Your task to perform on an android device: Go to notification settings Image 0: 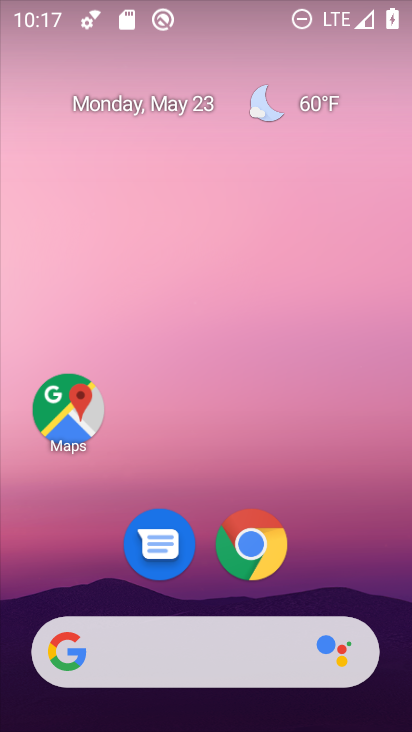
Step 0: drag from (336, 538) to (251, 132)
Your task to perform on an android device: Go to notification settings Image 1: 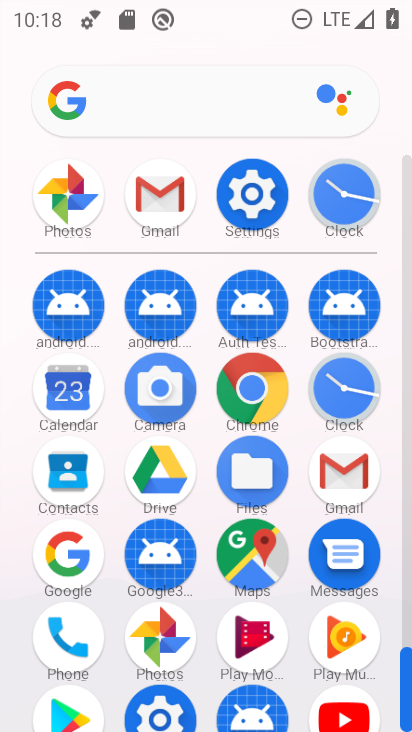
Step 1: click (256, 203)
Your task to perform on an android device: Go to notification settings Image 2: 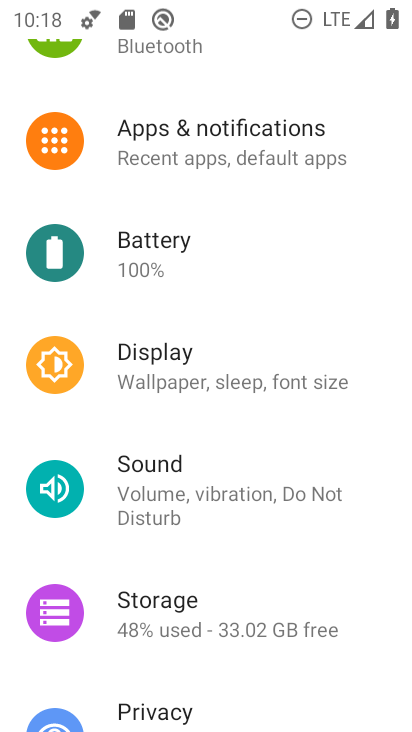
Step 2: click (249, 155)
Your task to perform on an android device: Go to notification settings Image 3: 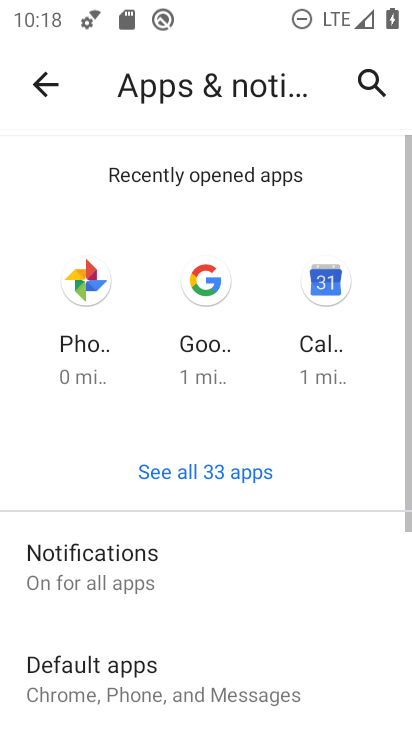
Step 3: click (88, 556)
Your task to perform on an android device: Go to notification settings Image 4: 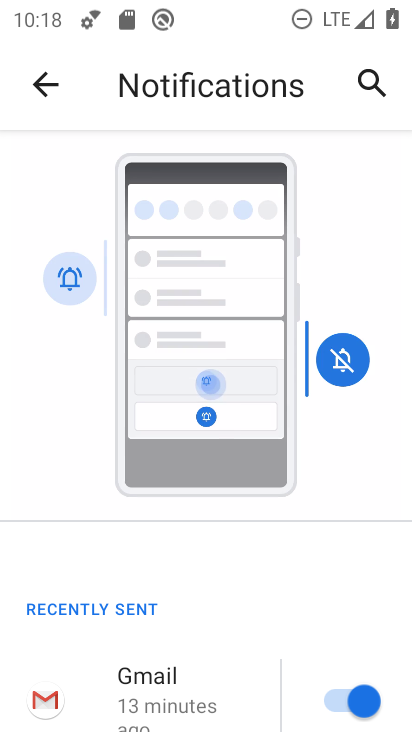
Step 4: drag from (140, 620) to (201, 188)
Your task to perform on an android device: Go to notification settings Image 5: 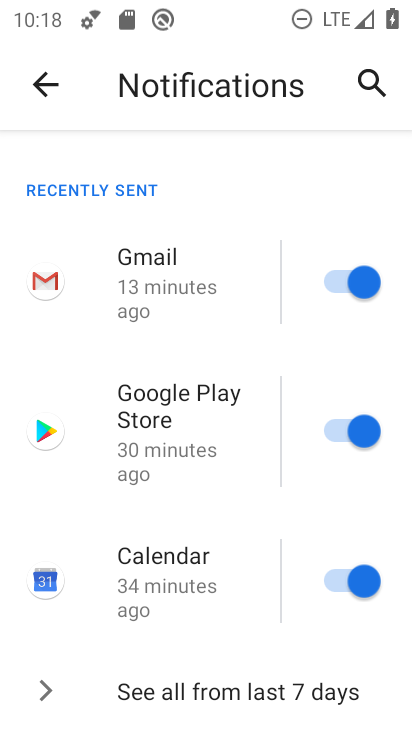
Step 5: drag from (195, 551) to (189, 352)
Your task to perform on an android device: Go to notification settings Image 6: 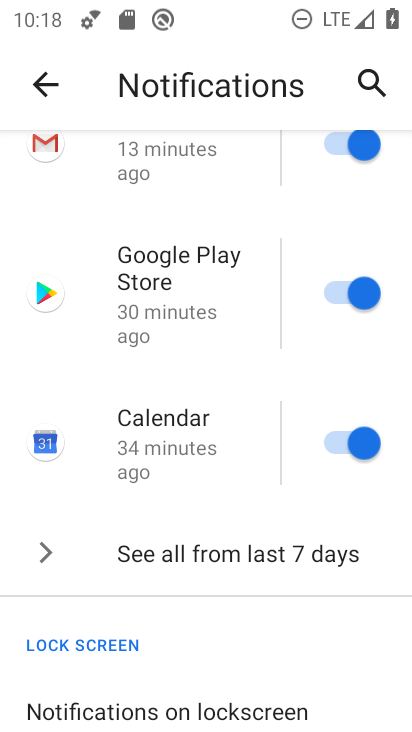
Step 6: drag from (150, 657) to (150, 271)
Your task to perform on an android device: Go to notification settings Image 7: 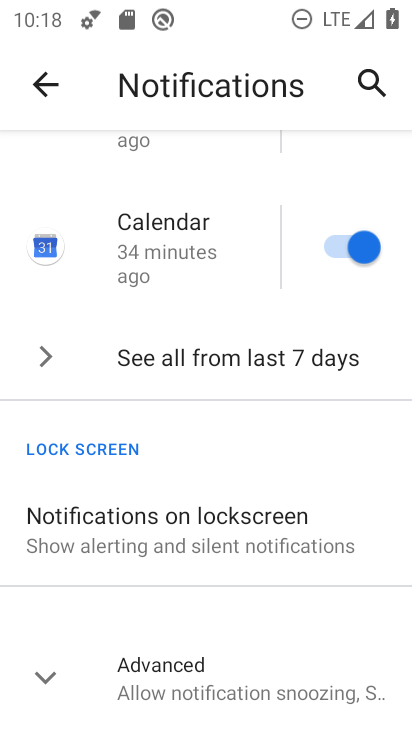
Step 7: click (152, 679)
Your task to perform on an android device: Go to notification settings Image 8: 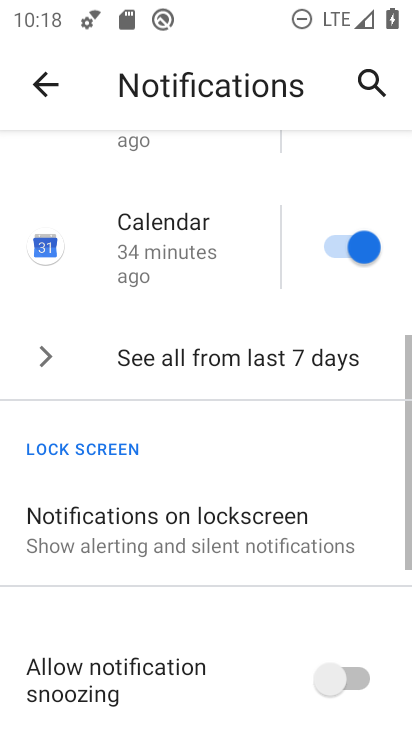
Step 8: task complete